Your task to perform on an android device: Do I have any events this weekend? Image 0: 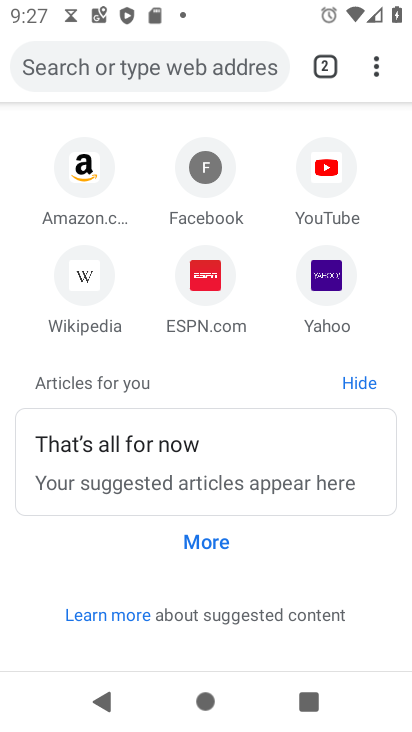
Step 0: press home button
Your task to perform on an android device: Do I have any events this weekend? Image 1: 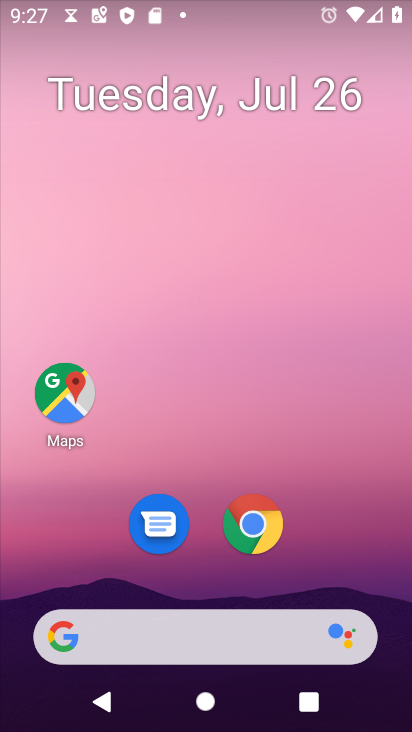
Step 1: drag from (194, 631) to (288, 250)
Your task to perform on an android device: Do I have any events this weekend? Image 2: 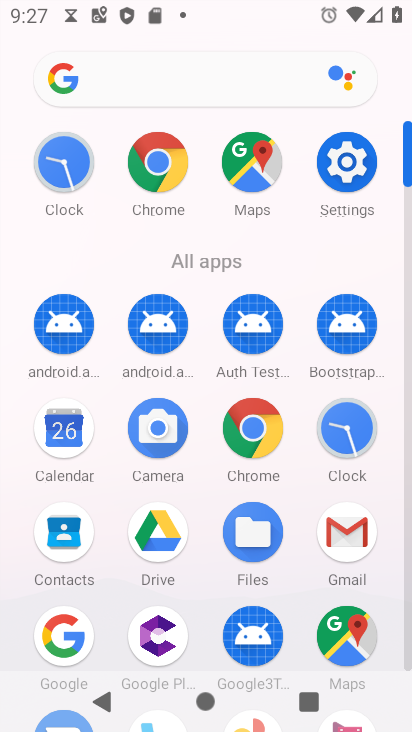
Step 2: click (58, 436)
Your task to perform on an android device: Do I have any events this weekend? Image 3: 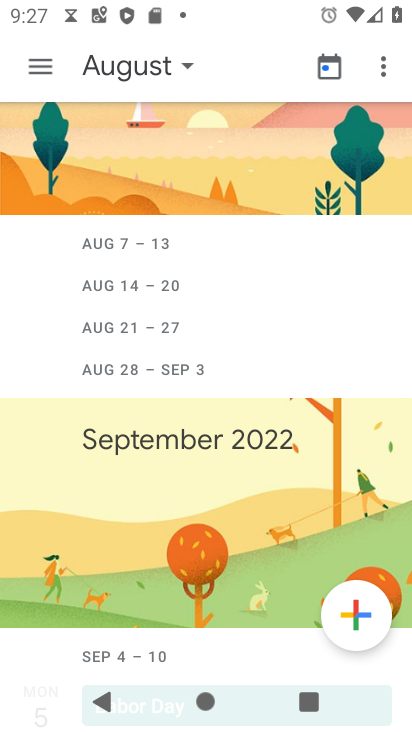
Step 3: click (132, 68)
Your task to perform on an android device: Do I have any events this weekend? Image 4: 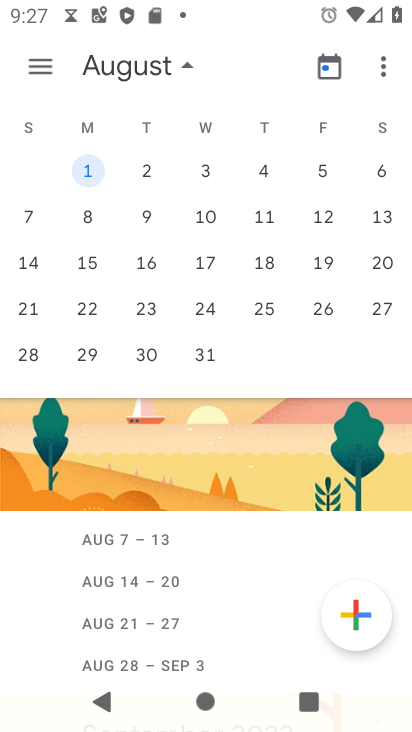
Step 4: drag from (49, 269) to (401, 283)
Your task to perform on an android device: Do I have any events this weekend? Image 5: 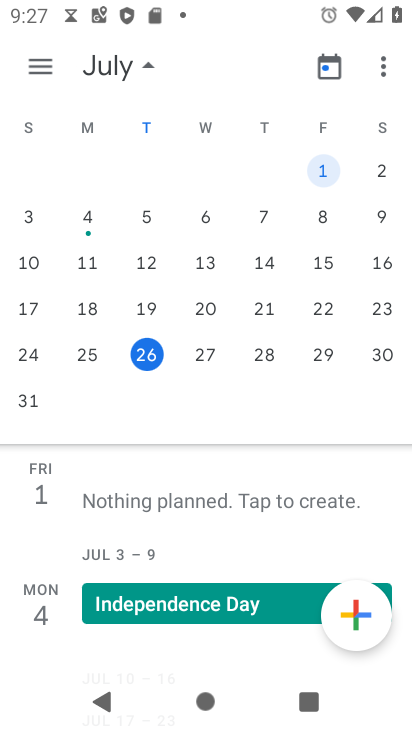
Step 5: click (386, 358)
Your task to perform on an android device: Do I have any events this weekend? Image 6: 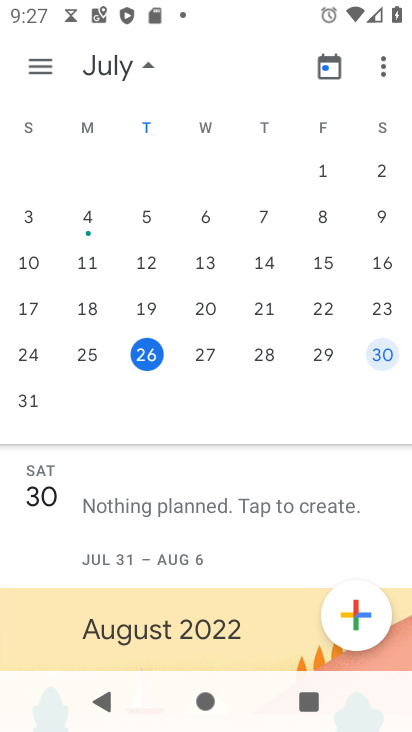
Step 6: click (46, 71)
Your task to perform on an android device: Do I have any events this weekend? Image 7: 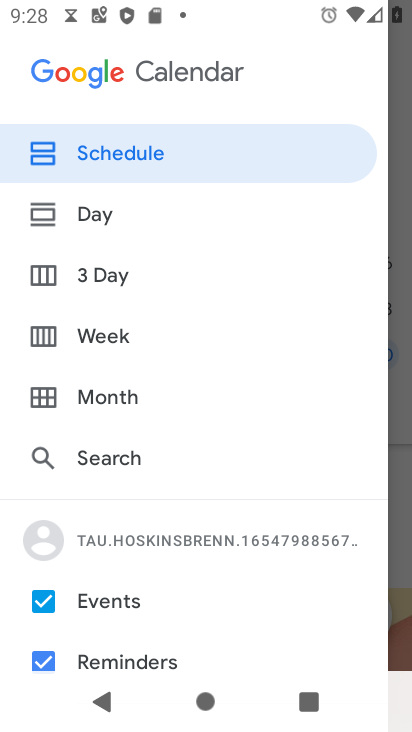
Step 7: click (109, 214)
Your task to perform on an android device: Do I have any events this weekend? Image 8: 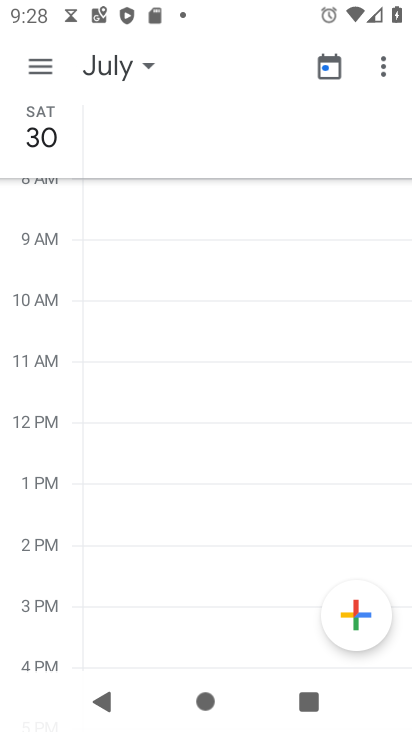
Step 8: click (44, 73)
Your task to perform on an android device: Do I have any events this weekend? Image 9: 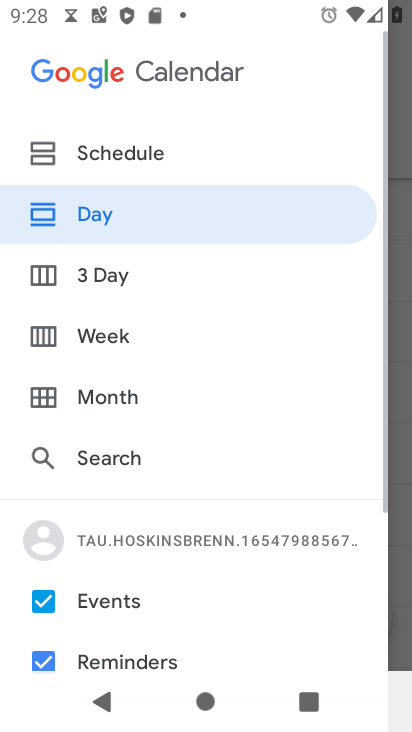
Step 9: click (109, 158)
Your task to perform on an android device: Do I have any events this weekend? Image 10: 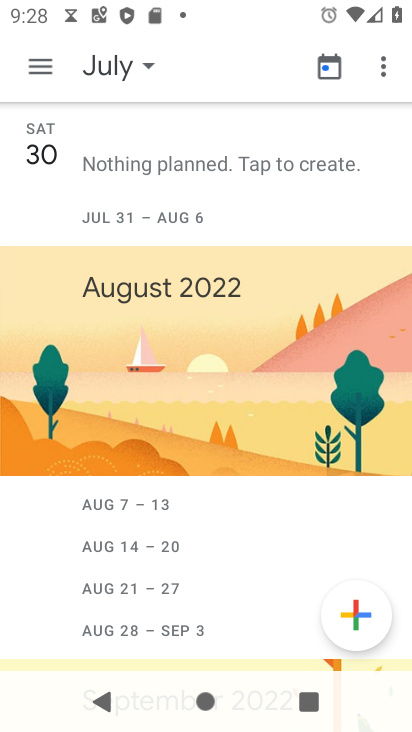
Step 10: task complete